Your task to perform on an android device: Is it going to rain this weekend? Image 0: 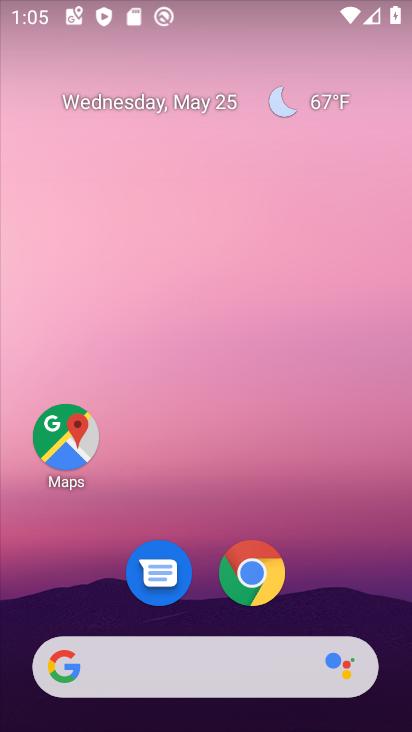
Step 0: click (314, 101)
Your task to perform on an android device: Is it going to rain this weekend? Image 1: 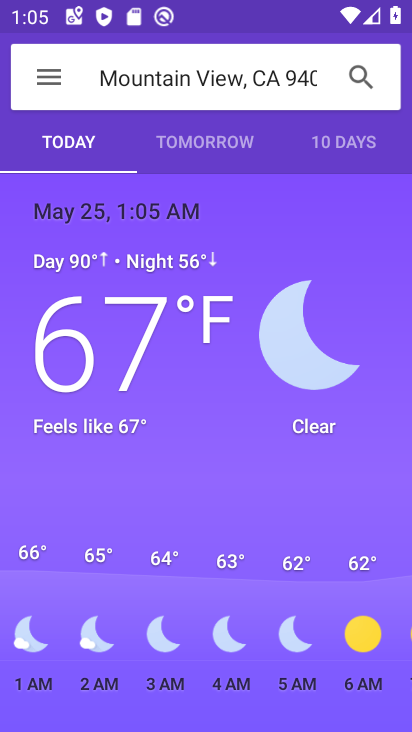
Step 1: click (341, 141)
Your task to perform on an android device: Is it going to rain this weekend? Image 2: 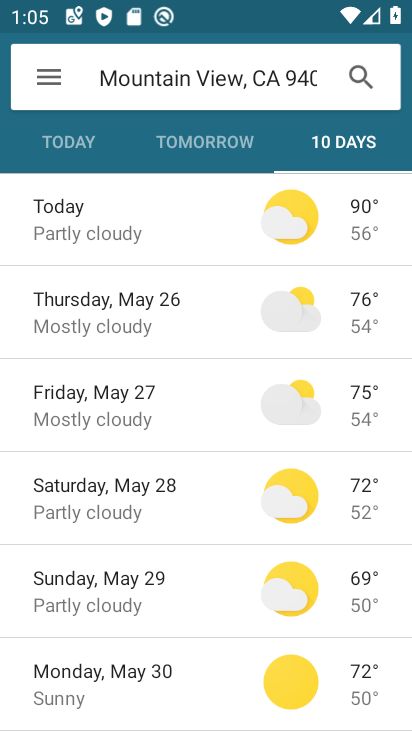
Step 2: task complete